Your task to perform on an android device: Go to battery settings Image 0: 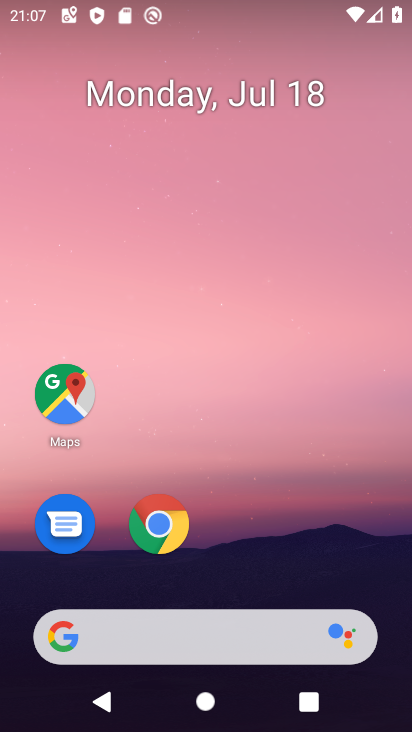
Step 0: drag from (352, 500) to (334, 11)
Your task to perform on an android device: Go to battery settings Image 1: 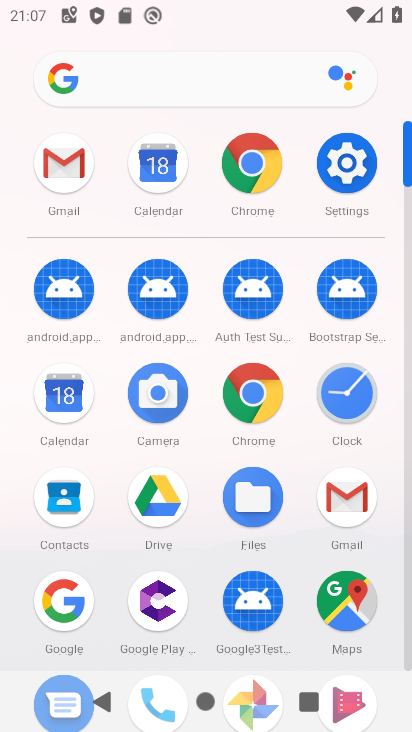
Step 1: click (350, 179)
Your task to perform on an android device: Go to battery settings Image 2: 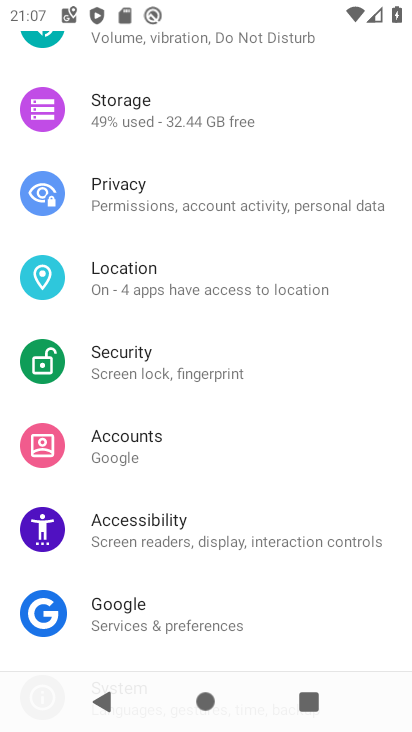
Step 2: drag from (252, 353) to (252, 719)
Your task to perform on an android device: Go to battery settings Image 3: 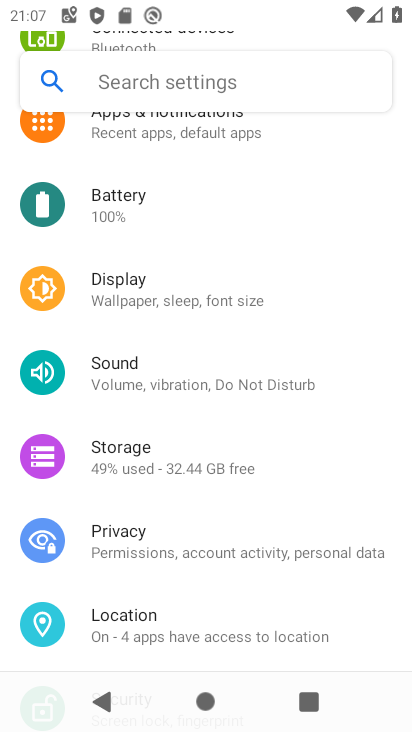
Step 3: click (137, 202)
Your task to perform on an android device: Go to battery settings Image 4: 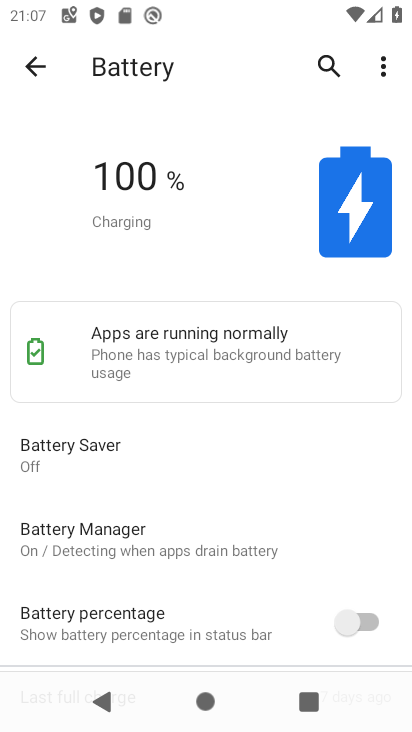
Step 4: task complete